Your task to perform on an android device: manage bookmarks in the chrome app Image 0: 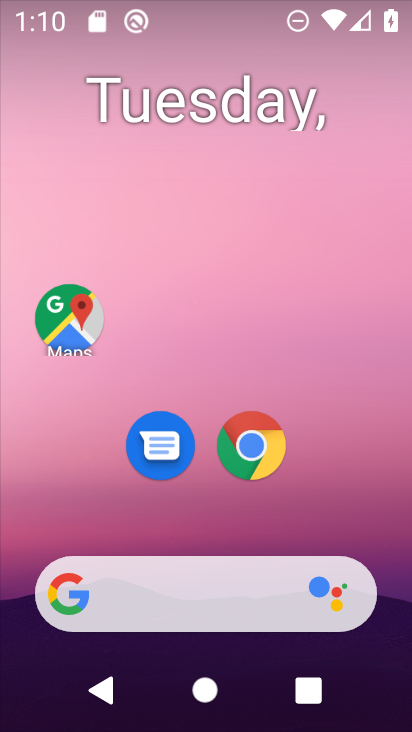
Step 0: drag from (236, 553) to (286, 229)
Your task to perform on an android device: manage bookmarks in the chrome app Image 1: 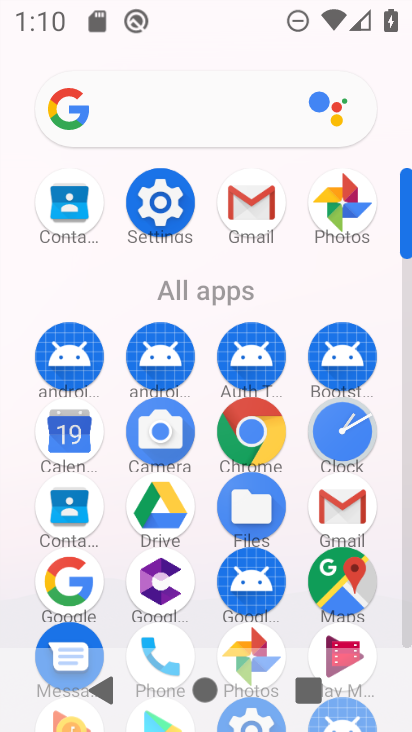
Step 1: click (262, 432)
Your task to perform on an android device: manage bookmarks in the chrome app Image 2: 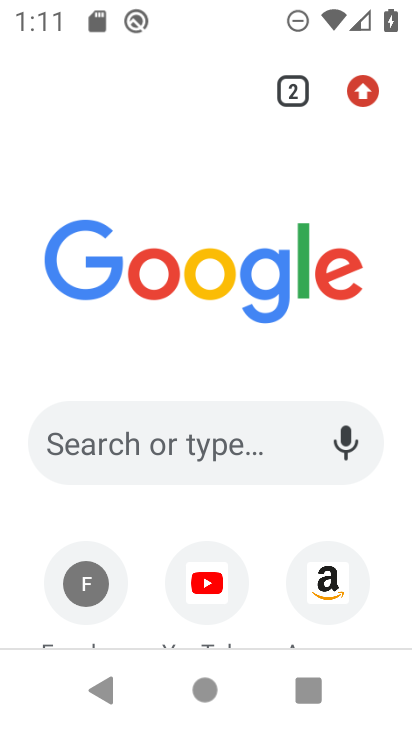
Step 2: click (356, 95)
Your task to perform on an android device: manage bookmarks in the chrome app Image 3: 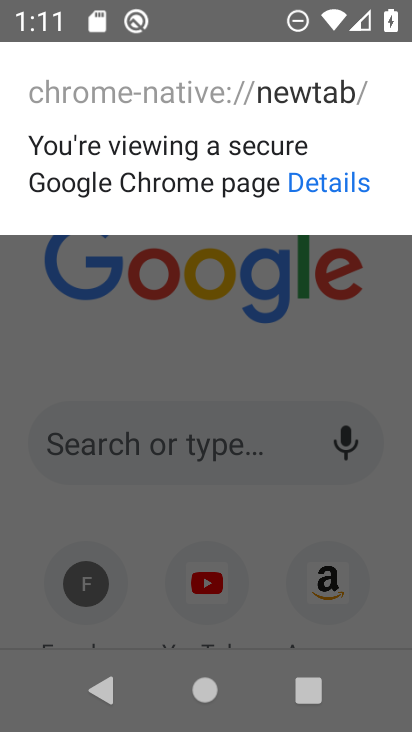
Step 3: click (180, 275)
Your task to perform on an android device: manage bookmarks in the chrome app Image 4: 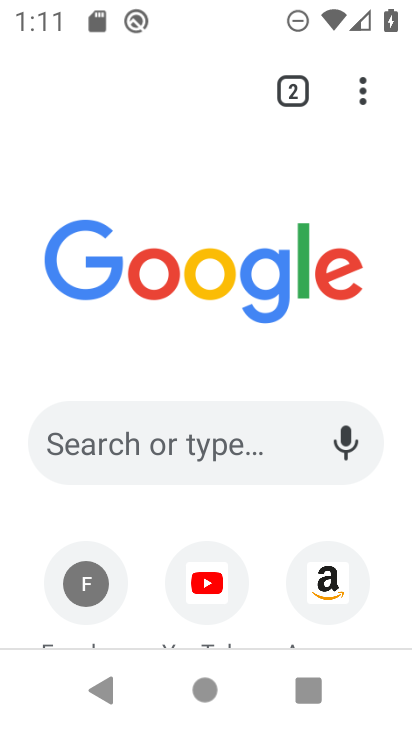
Step 4: click (360, 101)
Your task to perform on an android device: manage bookmarks in the chrome app Image 5: 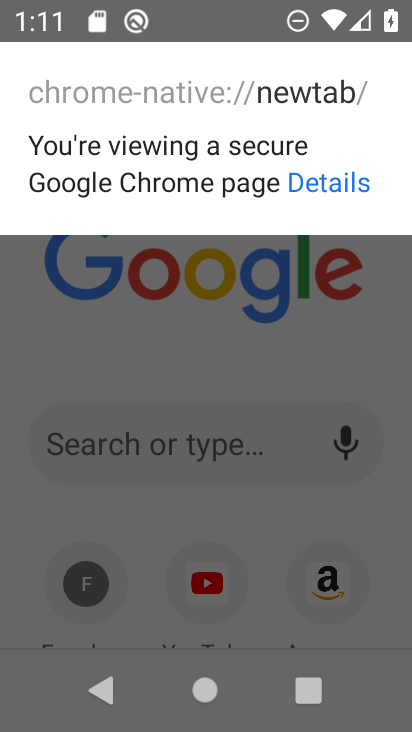
Step 5: click (340, 182)
Your task to perform on an android device: manage bookmarks in the chrome app Image 6: 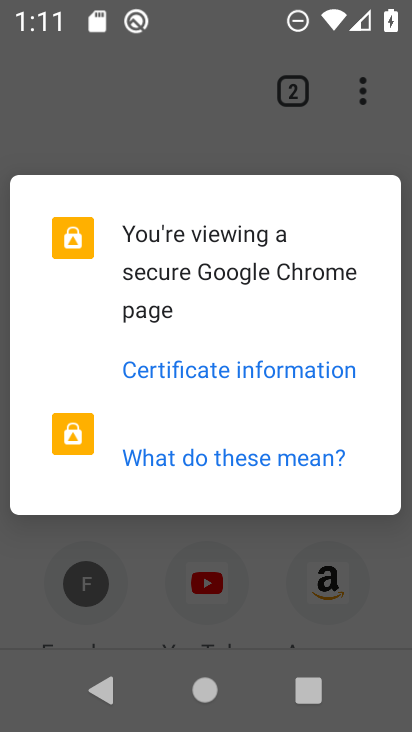
Step 6: click (211, 572)
Your task to perform on an android device: manage bookmarks in the chrome app Image 7: 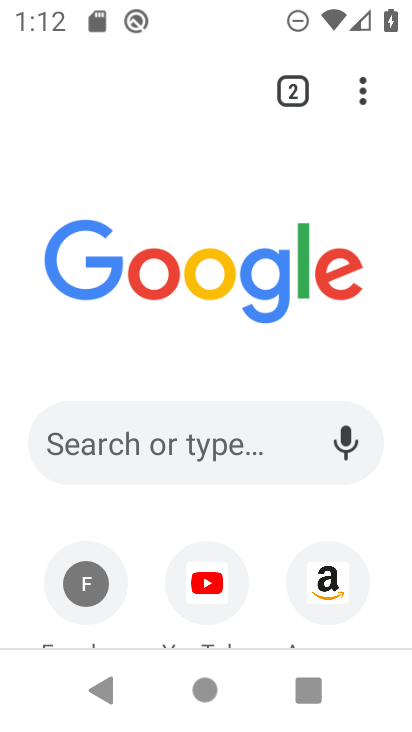
Step 7: task complete